Your task to perform on an android device: Open Yahoo.com Image 0: 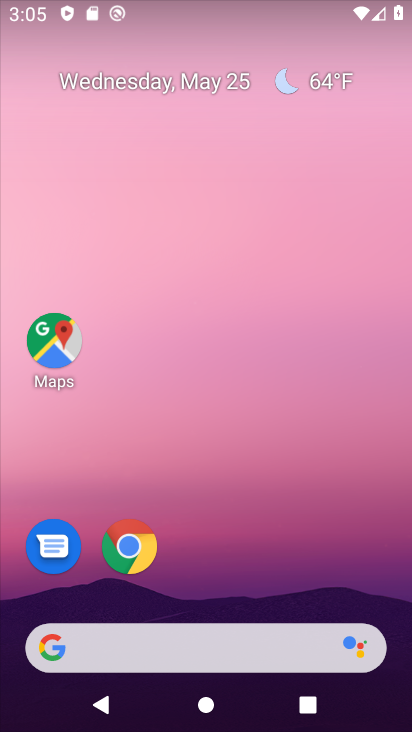
Step 0: click (129, 543)
Your task to perform on an android device: Open Yahoo.com Image 1: 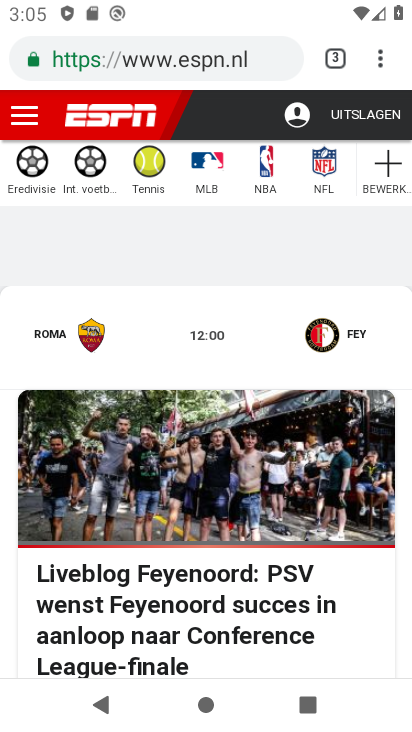
Step 1: click (335, 56)
Your task to perform on an android device: Open Yahoo.com Image 2: 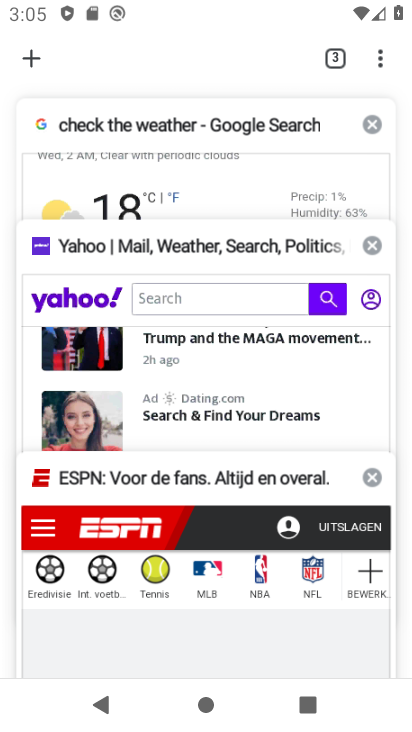
Step 2: click (186, 271)
Your task to perform on an android device: Open Yahoo.com Image 3: 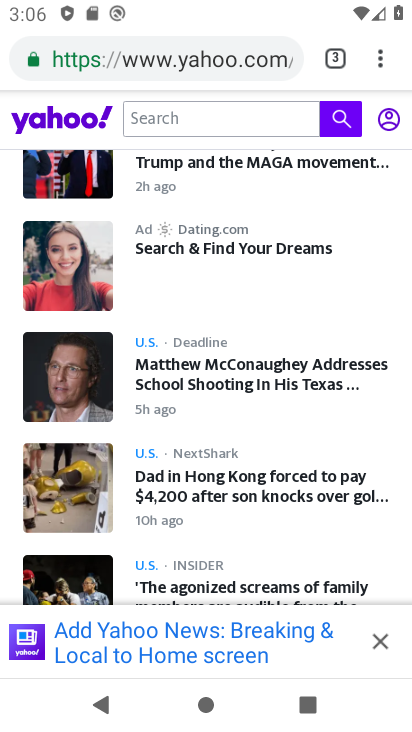
Step 3: task complete